Your task to perform on an android device: toggle improve location accuracy Image 0: 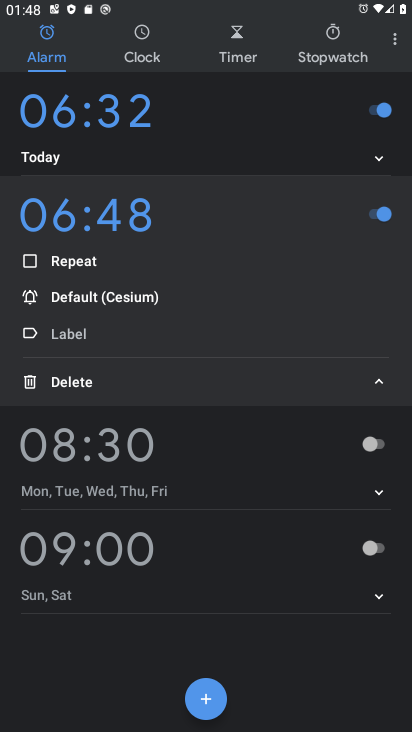
Step 0: press home button
Your task to perform on an android device: toggle improve location accuracy Image 1: 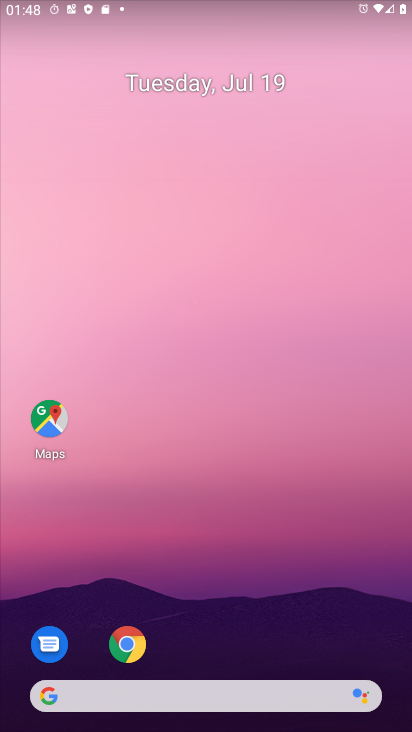
Step 1: drag from (241, 728) to (214, 205)
Your task to perform on an android device: toggle improve location accuracy Image 2: 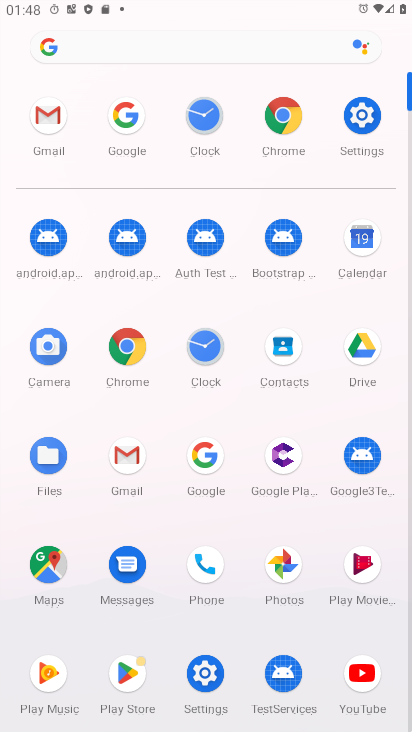
Step 2: click (358, 115)
Your task to perform on an android device: toggle improve location accuracy Image 3: 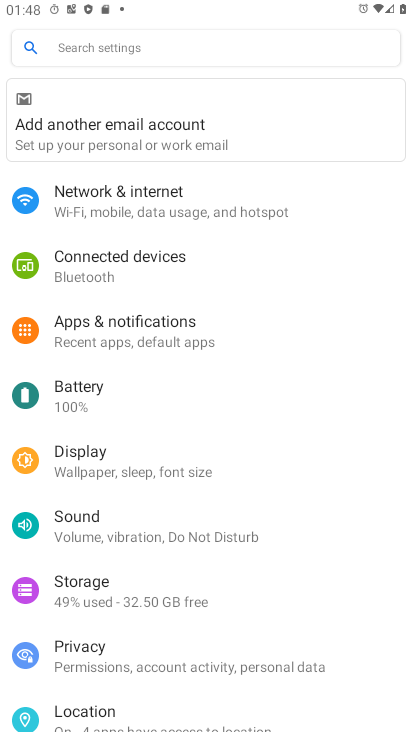
Step 3: click (67, 711)
Your task to perform on an android device: toggle improve location accuracy Image 4: 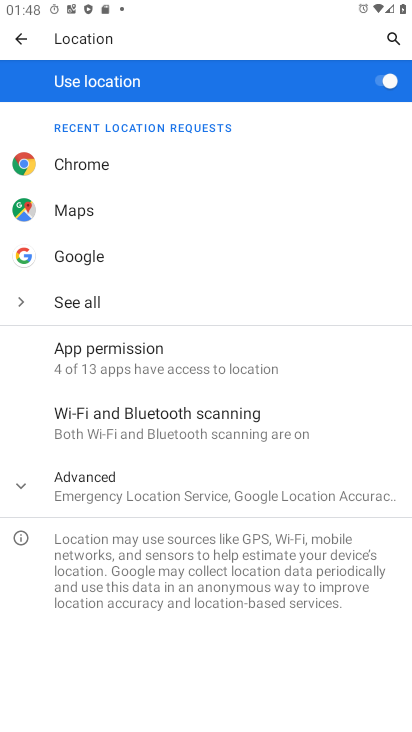
Step 4: click (102, 490)
Your task to perform on an android device: toggle improve location accuracy Image 5: 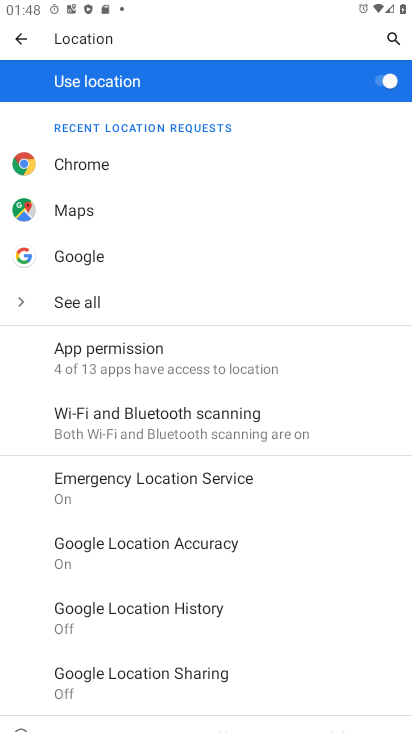
Step 5: click (116, 546)
Your task to perform on an android device: toggle improve location accuracy Image 6: 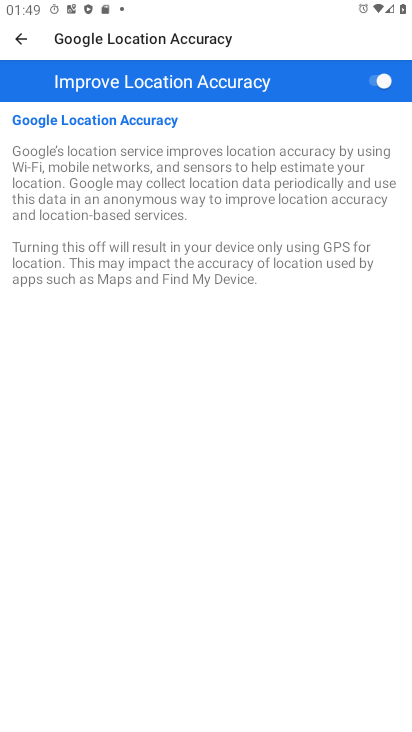
Step 6: click (373, 79)
Your task to perform on an android device: toggle improve location accuracy Image 7: 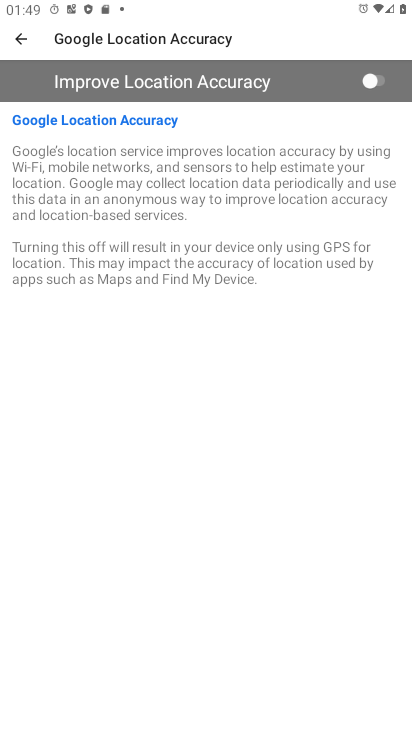
Step 7: task complete